Your task to perform on an android device: see tabs open on other devices in the chrome app Image 0: 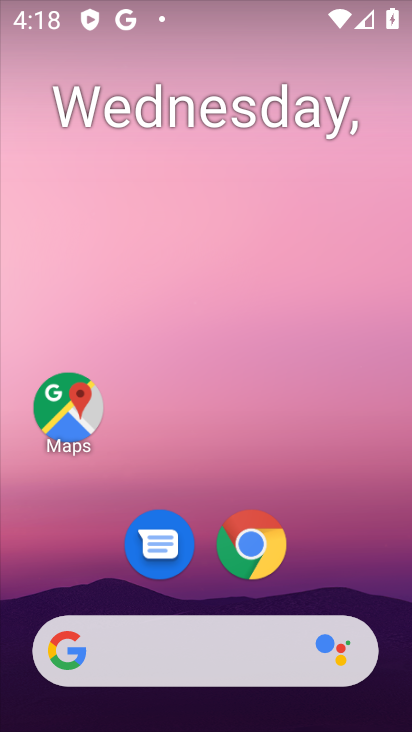
Step 0: drag from (354, 542) to (315, 166)
Your task to perform on an android device: see tabs open on other devices in the chrome app Image 1: 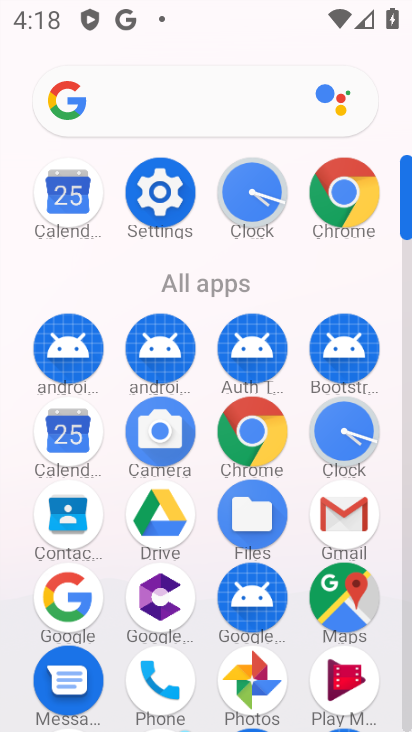
Step 1: click (255, 436)
Your task to perform on an android device: see tabs open on other devices in the chrome app Image 2: 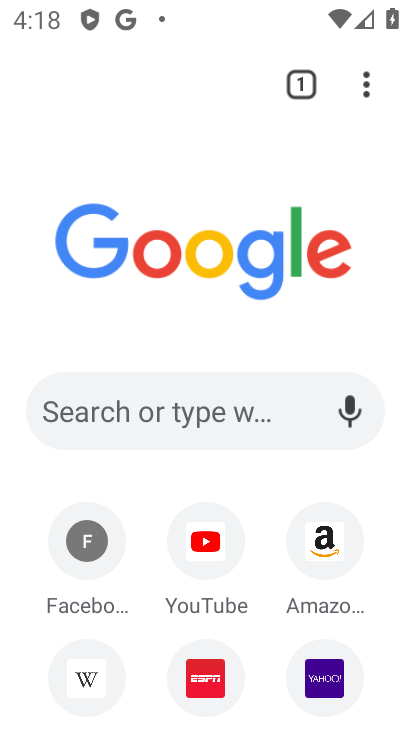
Step 2: click (366, 95)
Your task to perform on an android device: see tabs open on other devices in the chrome app Image 3: 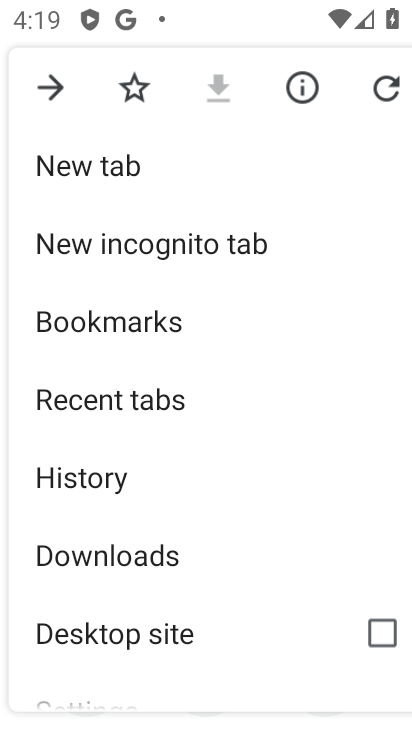
Step 3: click (196, 407)
Your task to perform on an android device: see tabs open on other devices in the chrome app Image 4: 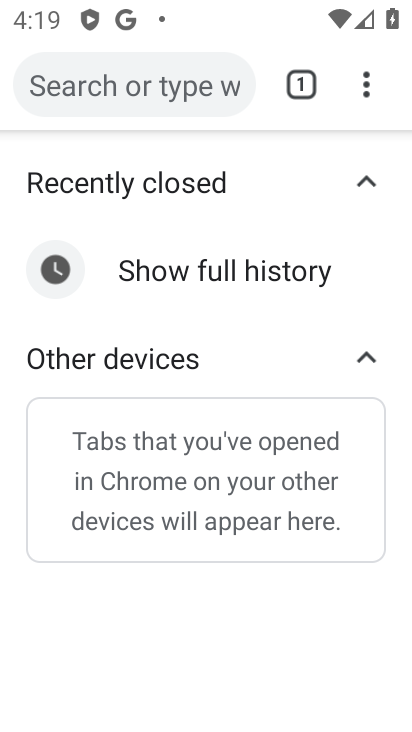
Step 4: click (295, 102)
Your task to perform on an android device: see tabs open on other devices in the chrome app Image 5: 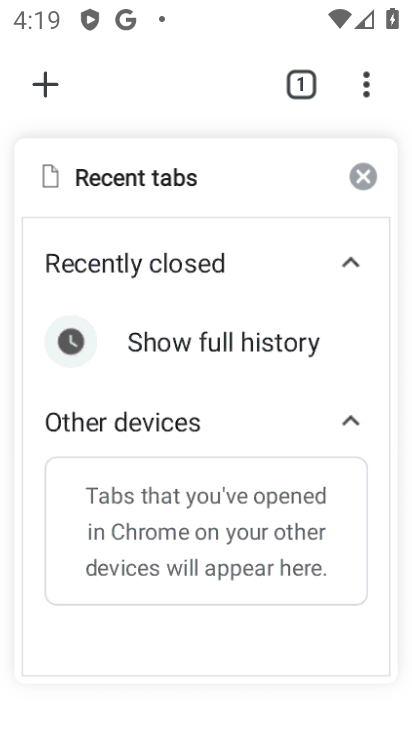
Step 5: task complete